Your task to perform on an android device: Open calendar and show me the second week of next month Image 0: 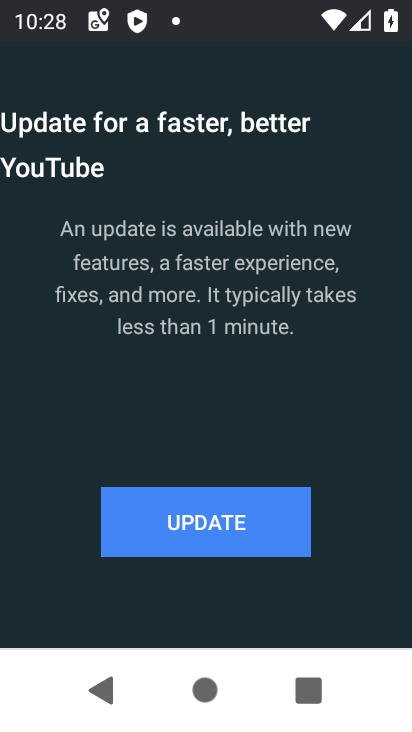
Step 0: press home button
Your task to perform on an android device: Open calendar and show me the second week of next month Image 1: 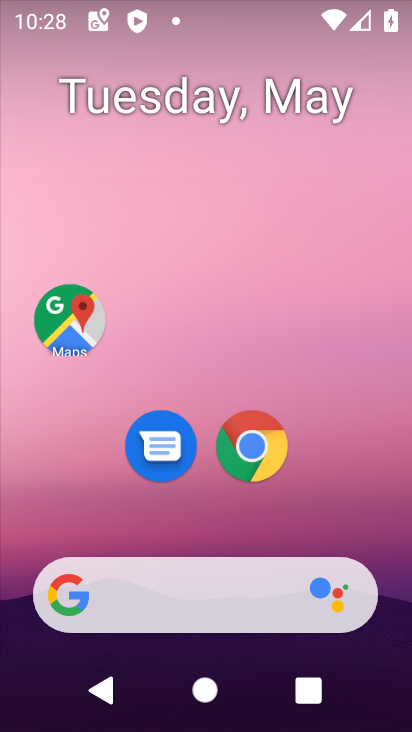
Step 1: drag from (250, 544) to (305, 6)
Your task to perform on an android device: Open calendar and show me the second week of next month Image 2: 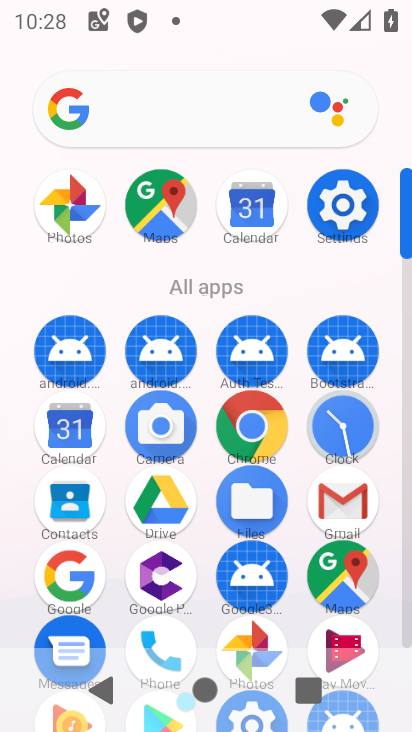
Step 2: click (259, 212)
Your task to perform on an android device: Open calendar and show me the second week of next month Image 3: 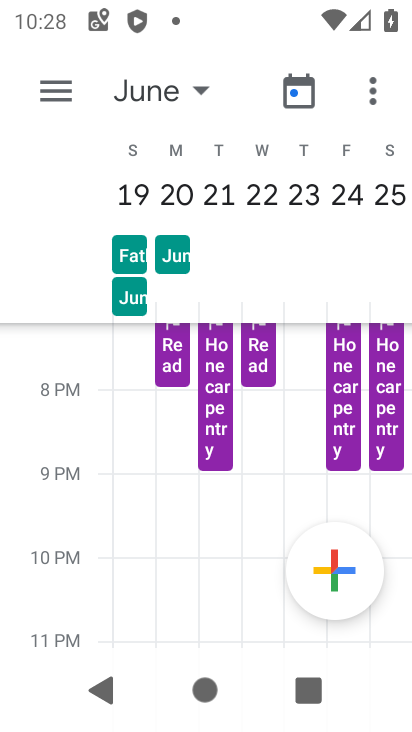
Step 3: task complete